Your task to perform on an android device: turn notification dots on Image 0: 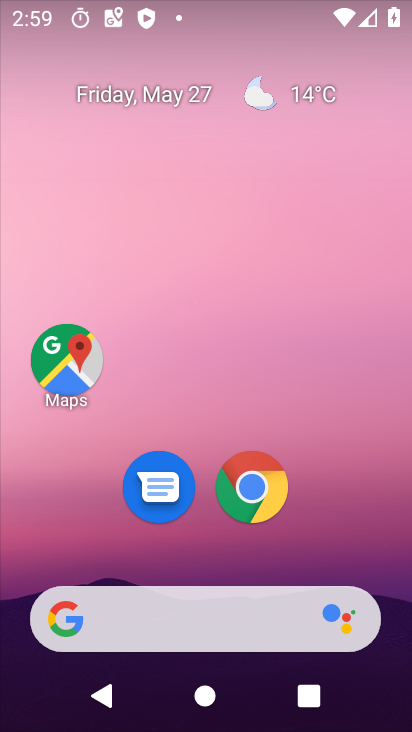
Step 0: drag from (338, 510) to (344, 167)
Your task to perform on an android device: turn notification dots on Image 1: 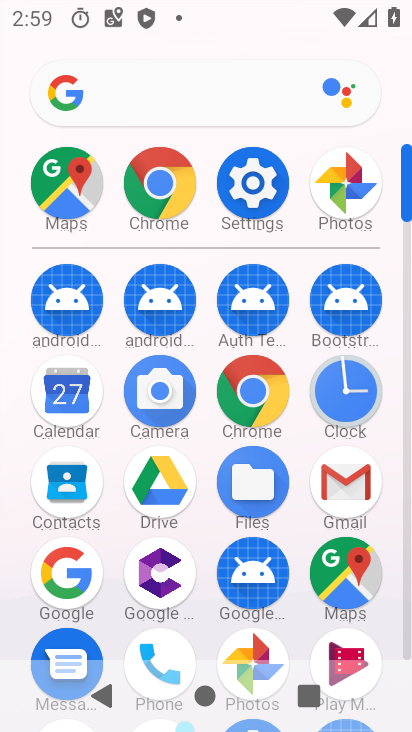
Step 1: click (256, 173)
Your task to perform on an android device: turn notification dots on Image 2: 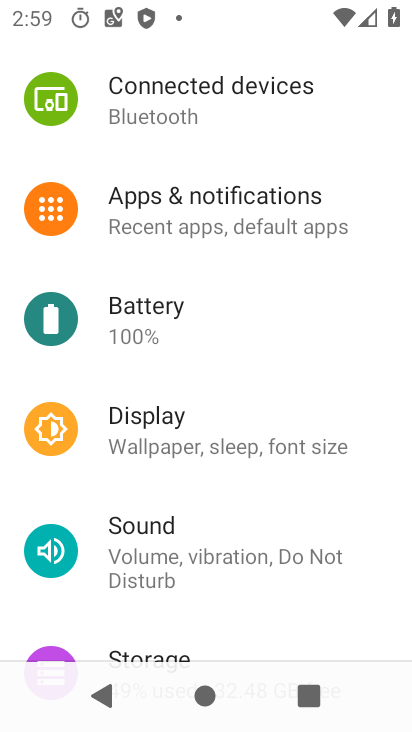
Step 2: click (237, 217)
Your task to perform on an android device: turn notification dots on Image 3: 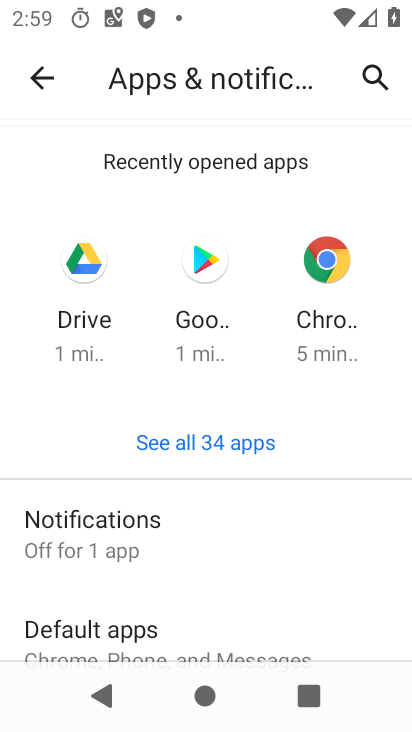
Step 3: drag from (251, 495) to (313, 66)
Your task to perform on an android device: turn notification dots on Image 4: 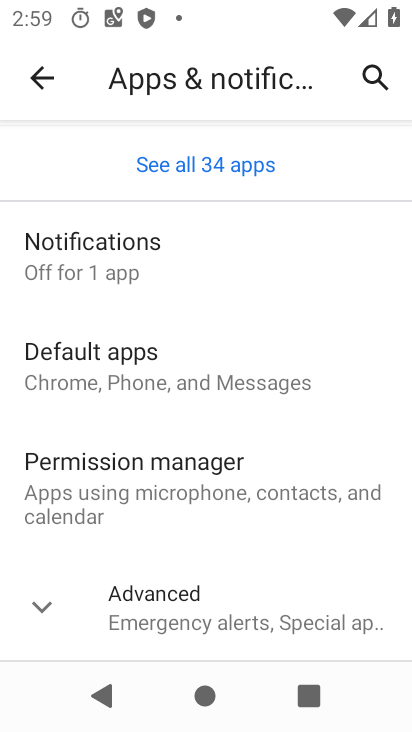
Step 4: click (197, 597)
Your task to perform on an android device: turn notification dots on Image 5: 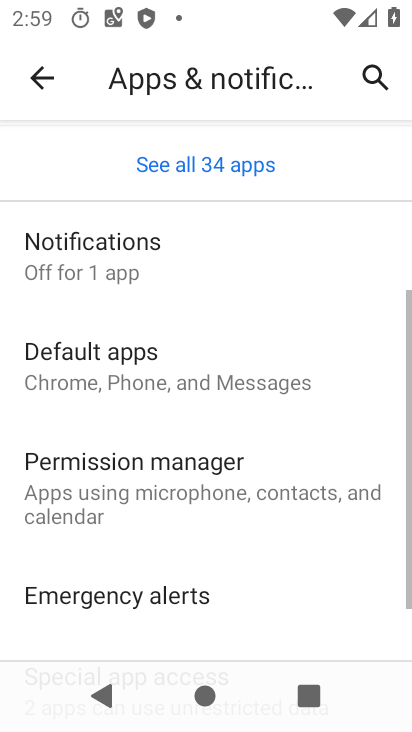
Step 5: drag from (292, 584) to (329, 86)
Your task to perform on an android device: turn notification dots on Image 6: 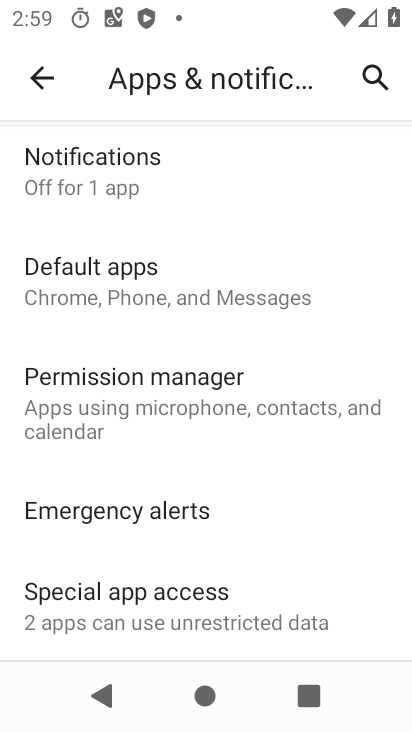
Step 6: drag from (249, 568) to (316, 177)
Your task to perform on an android device: turn notification dots on Image 7: 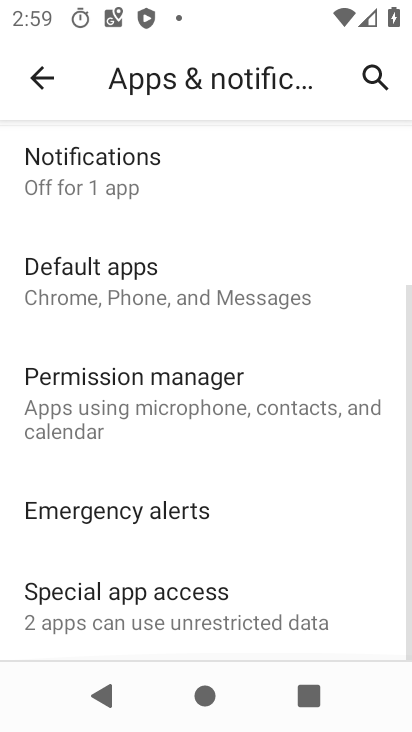
Step 7: click (123, 182)
Your task to perform on an android device: turn notification dots on Image 8: 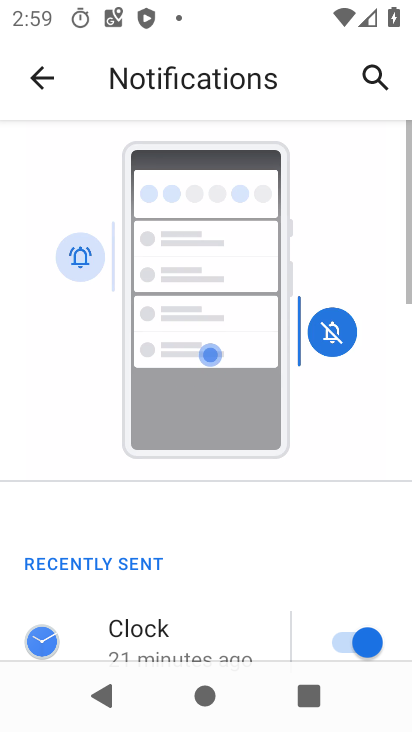
Step 8: drag from (245, 577) to (312, 126)
Your task to perform on an android device: turn notification dots on Image 9: 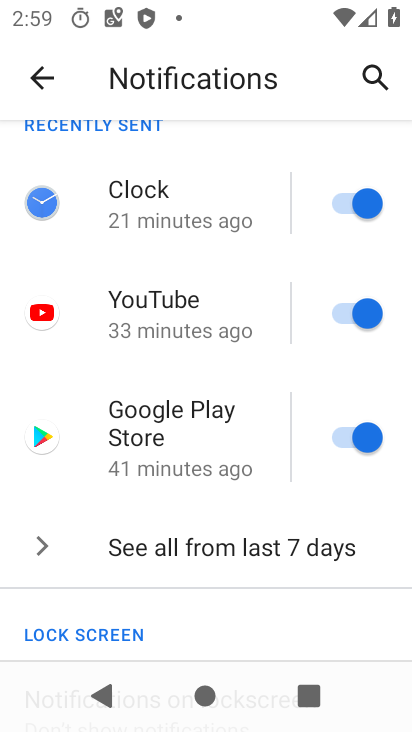
Step 9: drag from (224, 519) to (282, 105)
Your task to perform on an android device: turn notification dots on Image 10: 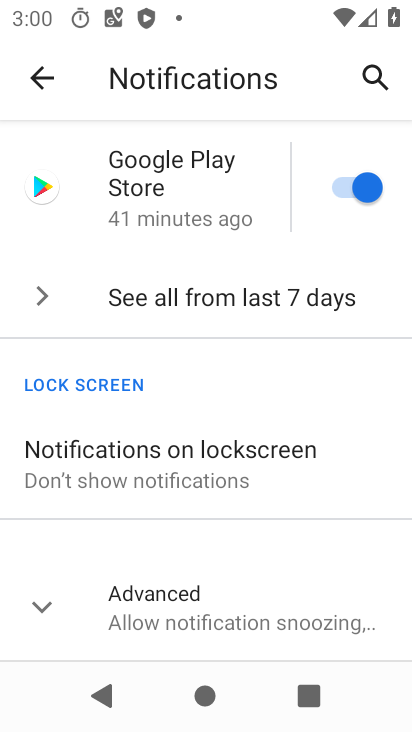
Step 10: click (217, 596)
Your task to perform on an android device: turn notification dots on Image 11: 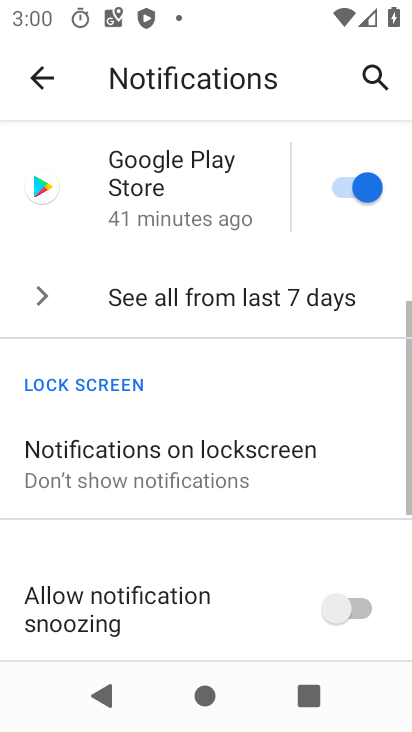
Step 11: task complete